Your task to perform on an android device: Toggle the flashlight Image 0: 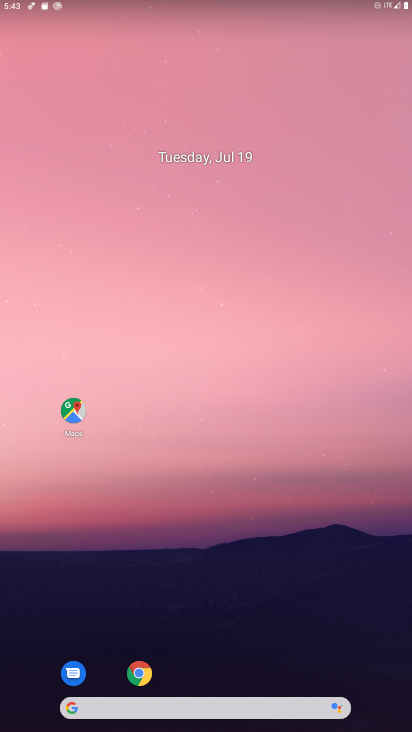
Step 0: drag from (201, 674) to (230, 64)
Your task to perform on an android device: Toggle the flashlight Image 1: 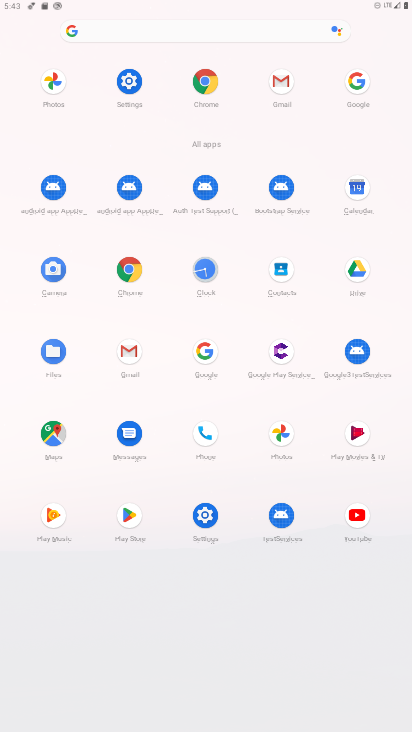
Step 1: click (133, 77)
Your task to perform on an android device: Toggle the flashlight Image 2: 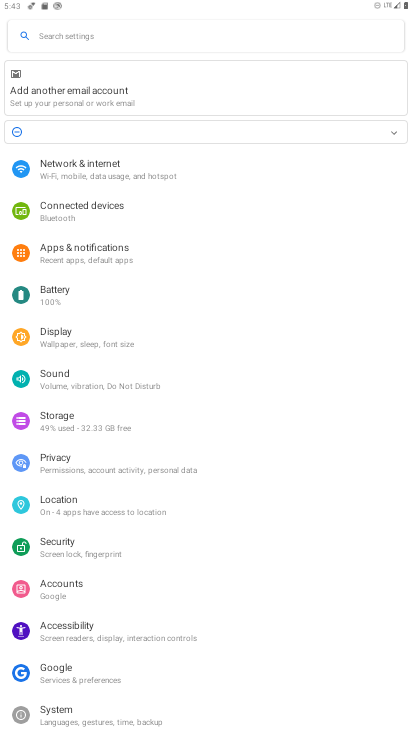
Step 2: click (88, 32)
Your task to perform on an android device: Toggle the flashlight Image 3: 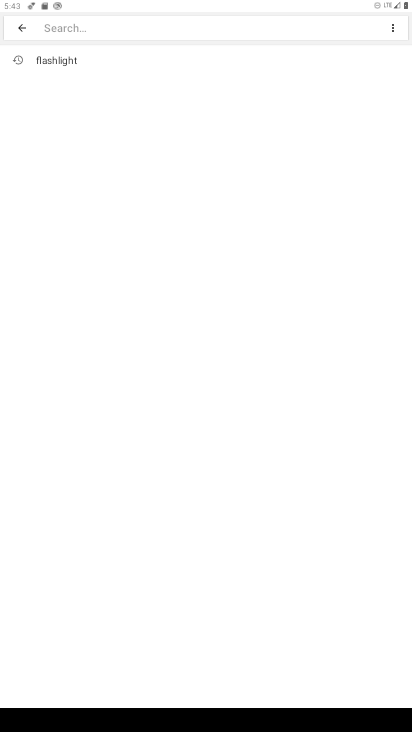
Step 3: click (58, 59)
Your task to perform on an android device: Toggle the flashlight Image 4: 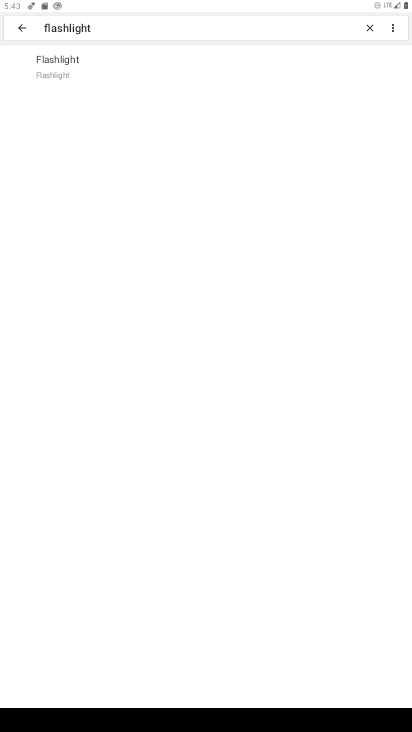
Step 4: click (82, 66)
Your task to perform on an android device: Toggle the flashlight Image 5: 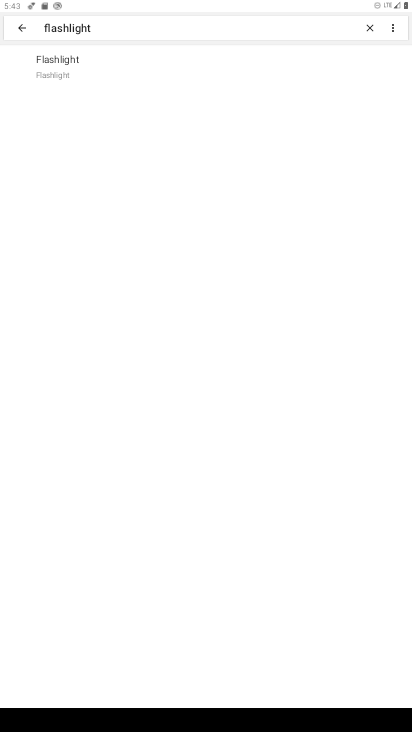
Step 5: task complete